Your task to perform on an android device: What's a good restaurant in Atlanta? Image 0: 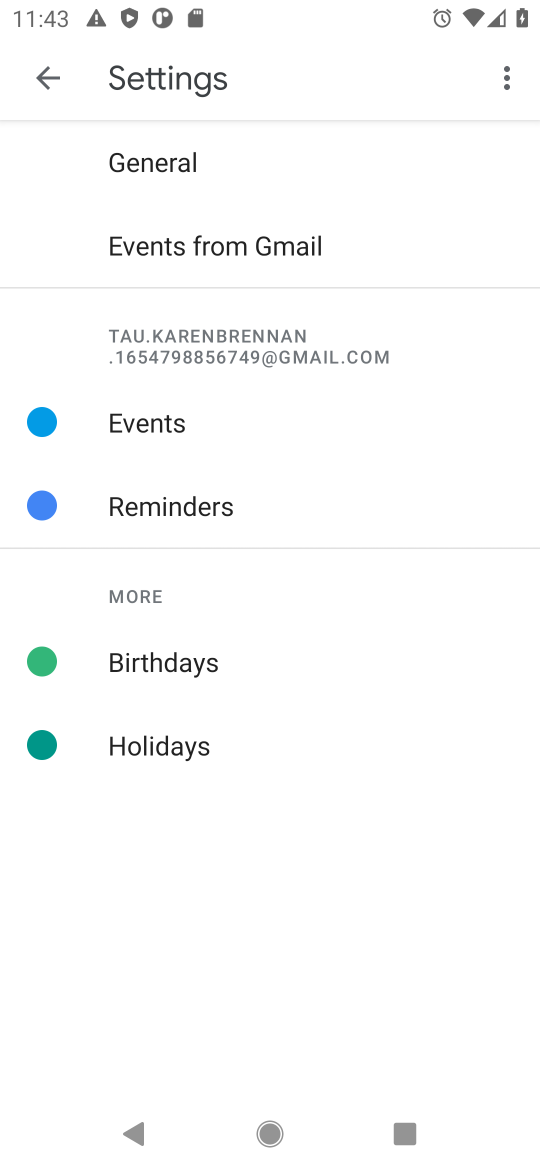
Step 0: press home button
Your task to perform on an android device: What's a good restaurant in Atlanta? Image 1: 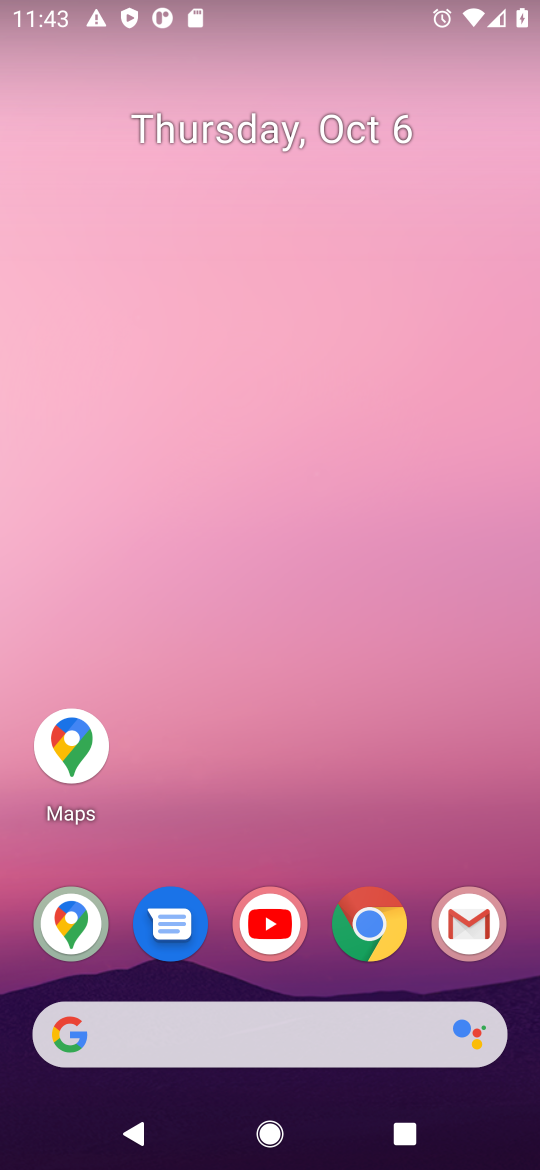
Step 1: click (68, 760)
Your task to perform on an android device: What's a good restaurant in Atlanta? Image 2: 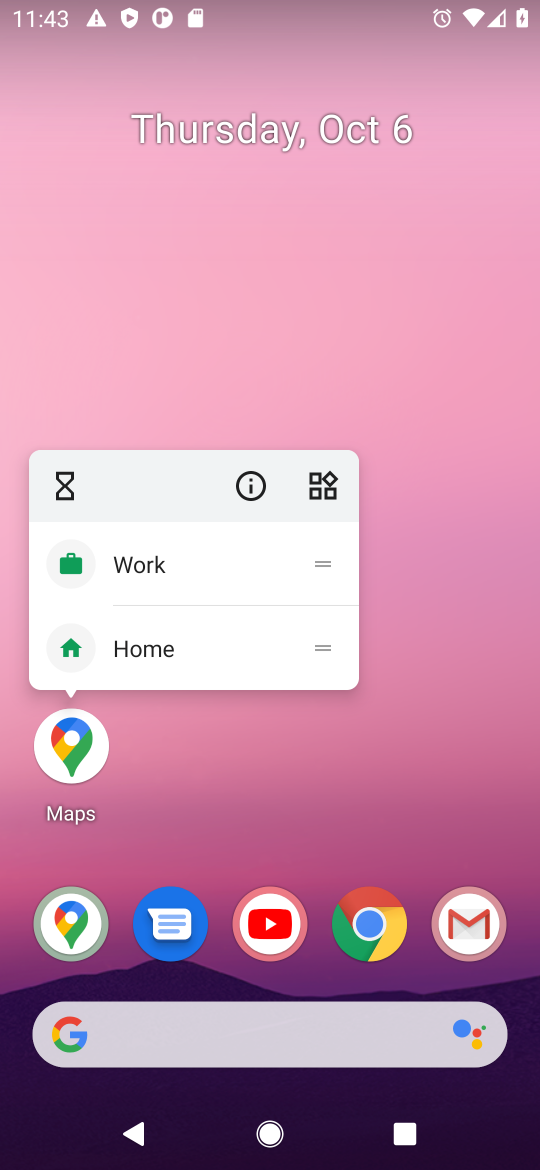
Step 2: click (57, 756)
Your task to perform on an android device: What's a good restaurant in Atlanta? Image 3: 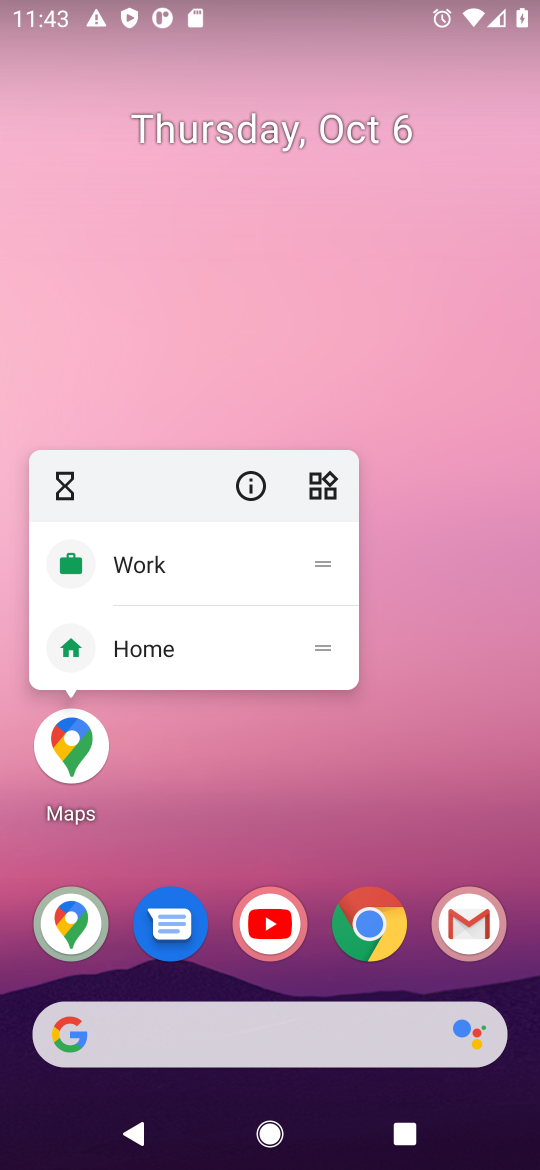
Step 3: click (63, 751)
Your task to perform on an android device: What's a good restaurant in Atlanta? Image 4: 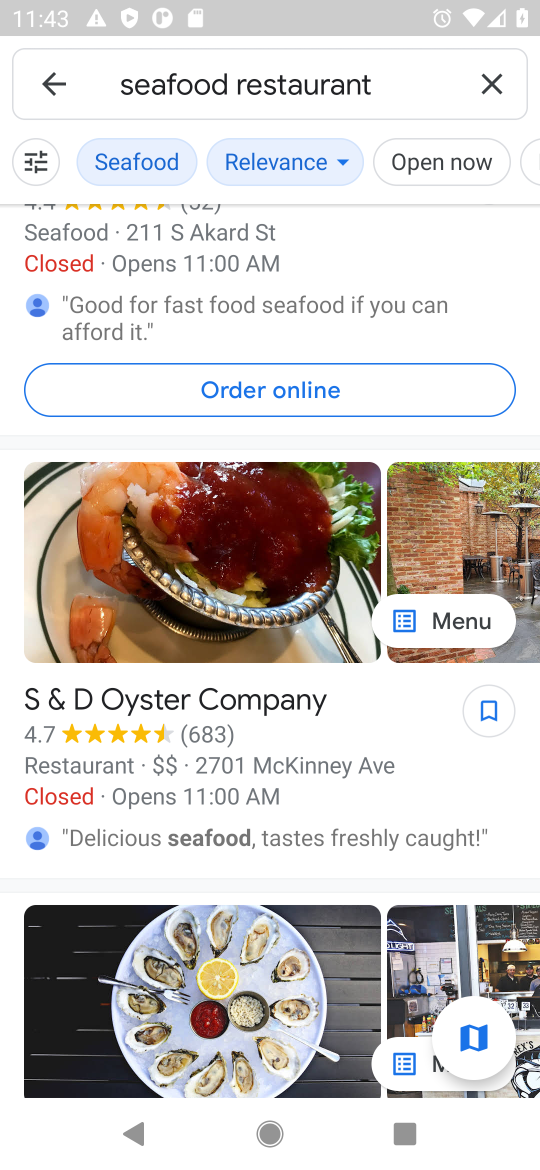
Step 4: click (493, 76)
Your task to perform on an android device: What's a good restaurant in Atlanta? Image 5: 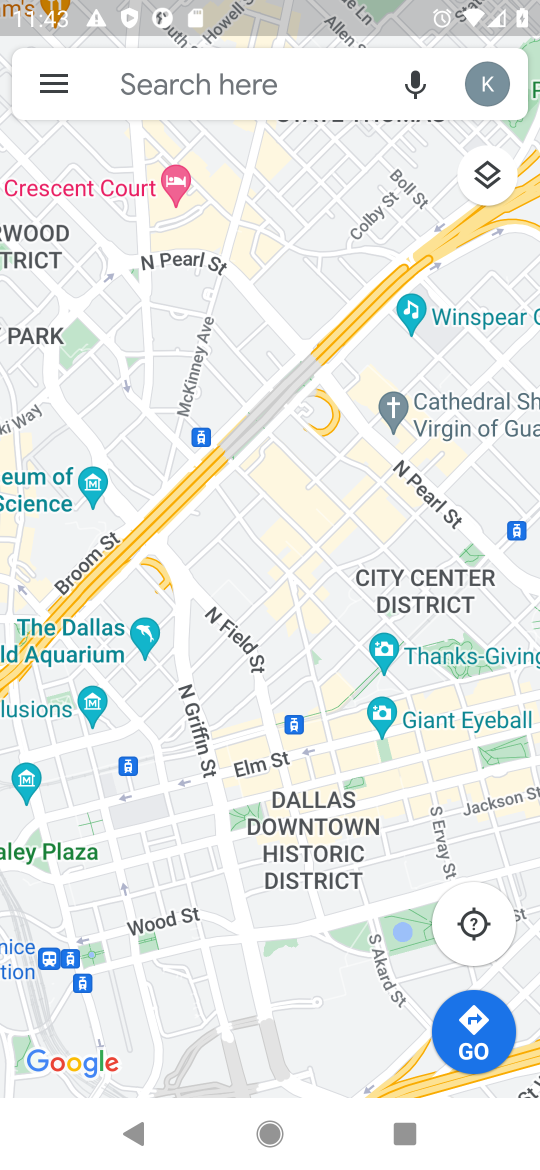
Step 5: click (140, 80)
Your task to perform on an android device: What's a good restaurant in Atlanta? Image 6: 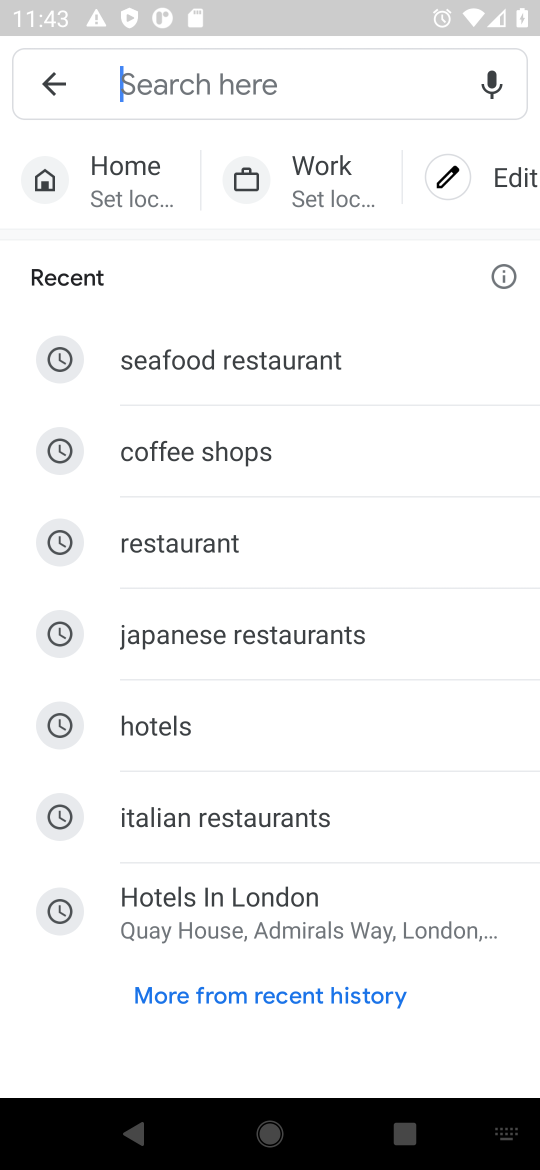
Step 6: type "good restaurant in Atlanta"
Your task to perform on an android device: What's a good restaurant in Atlanta? Image 7: 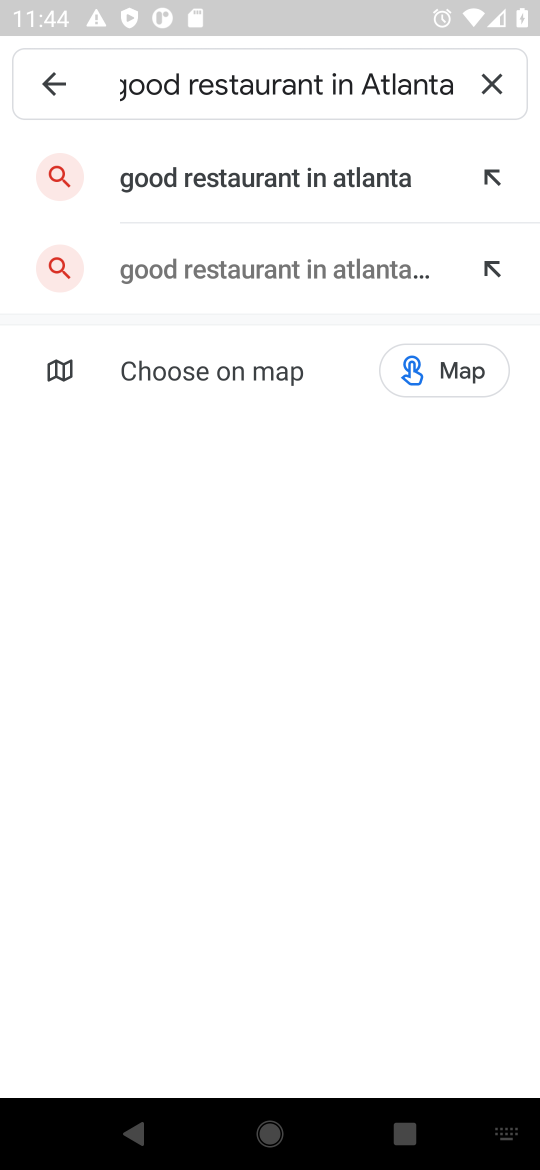
Step 7: click (317, 185)
Your task to perform on an android device: What's a good restaurant in Atlanta? Image 8: 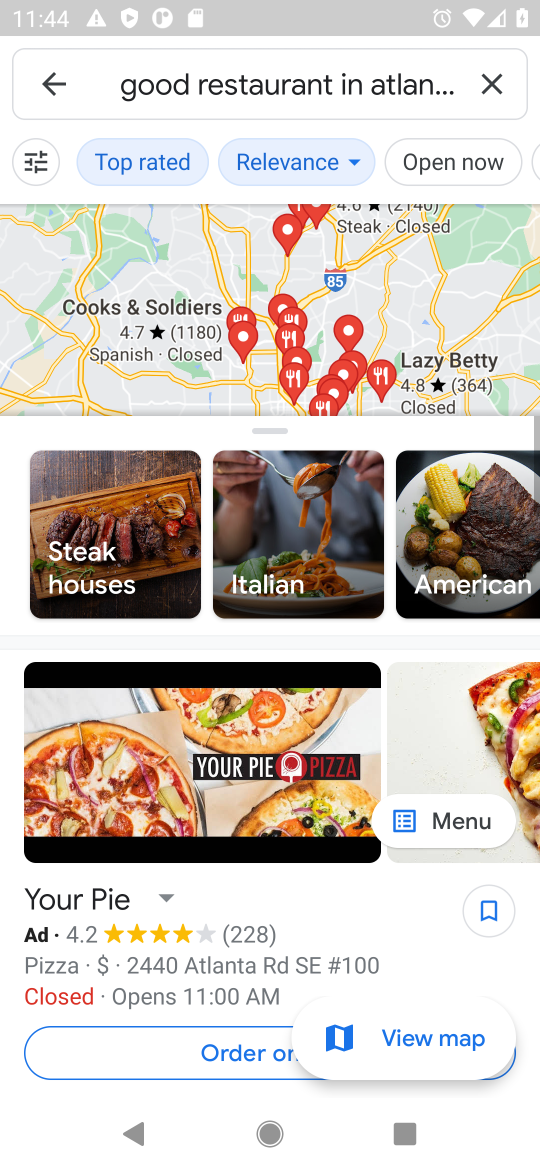
Step 8: task complete